Your task to perform on an android device: change text size in settings app Image 0: 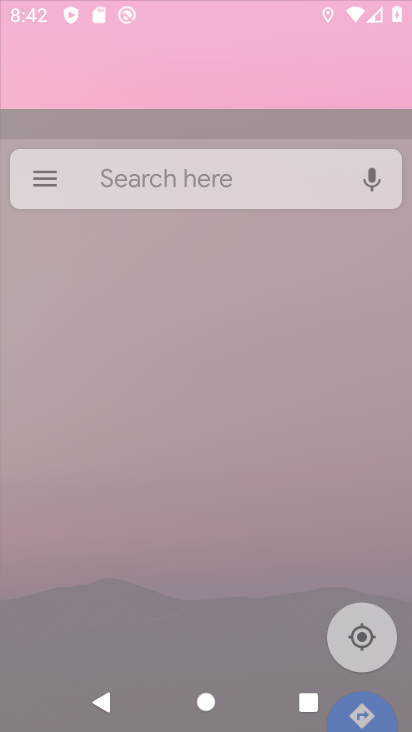
Step 0: click (256, 48)
Your task to perform on an android device: change text size in settings app Image 1: 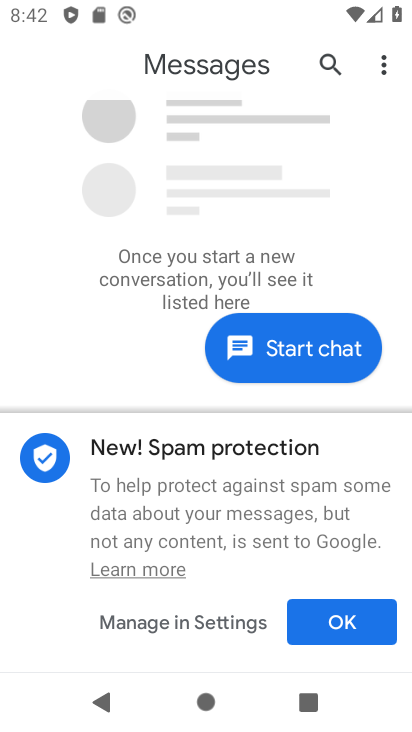
Step 1: press back button
Your task to perform on an android device: change text size in settings app Image 2: 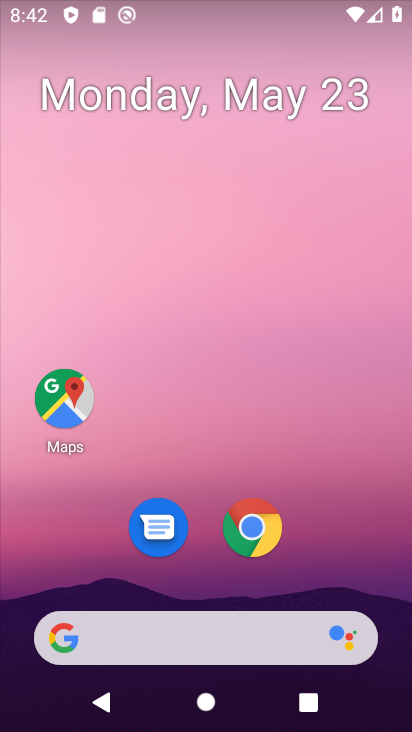
Step 2: drag from (378, 546) to (180, 13)
Your task to perform on an android device: change text size in settings app Image 3: 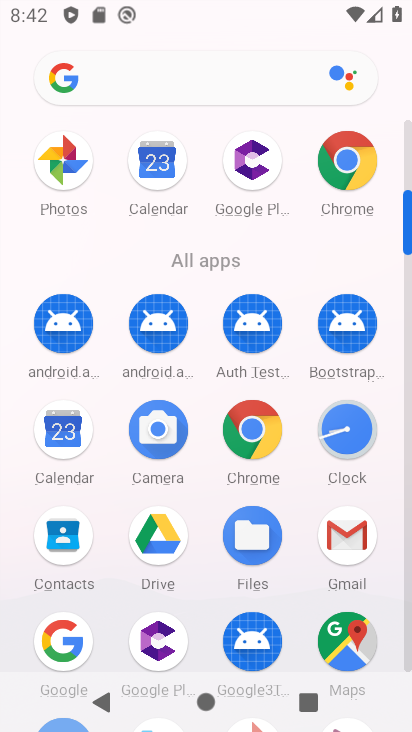
Step 3: drag from (15, 529) to (29, 252)
Your task to perform on an android device: change text size in settings app Image 4: 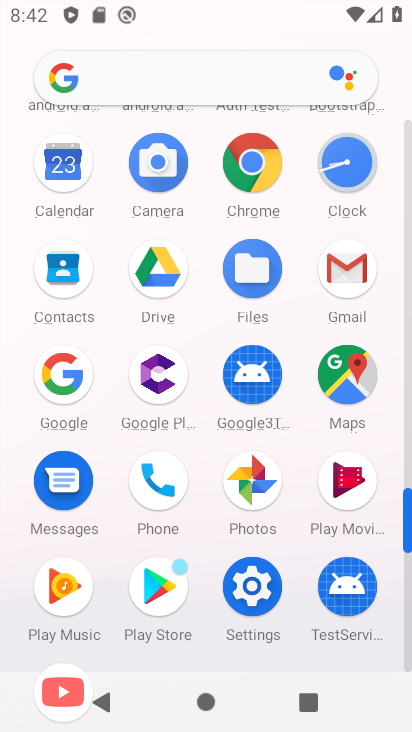
Step 4: click (248, 581)
Your task to perform on an android device: change text size in settings app Image 5: 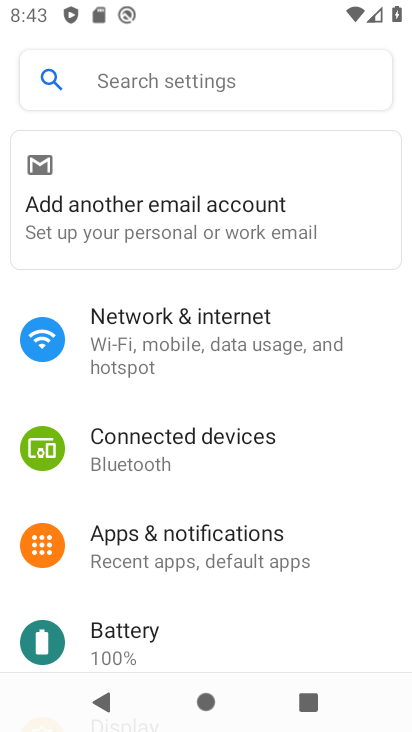
Step 5: drag from (237, 567) to (239, 186)
Your task to perform on an android device: change text size in settings app Image 6: 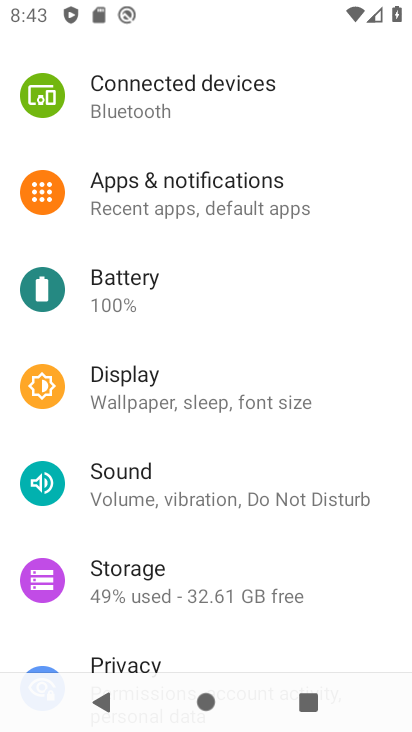
Step 6: drag from (287, 606) to (282, 160)
Your task to perform on an android device: change text size in settings app Image 7: 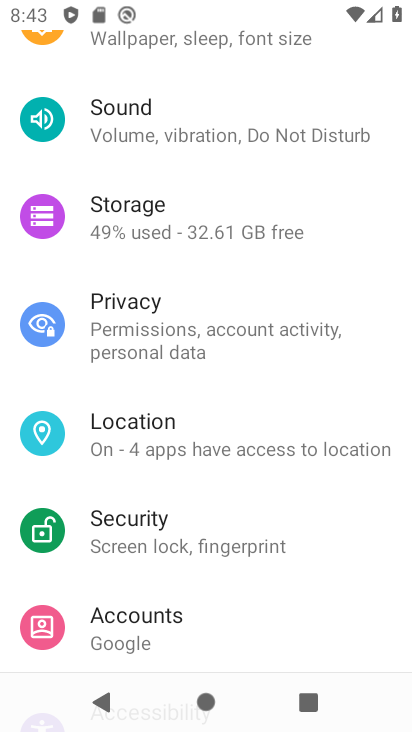
Step 7: drag from (277, 556) to (276, 121)
Your task to perform on an android device: change text size in settings app Image 8: 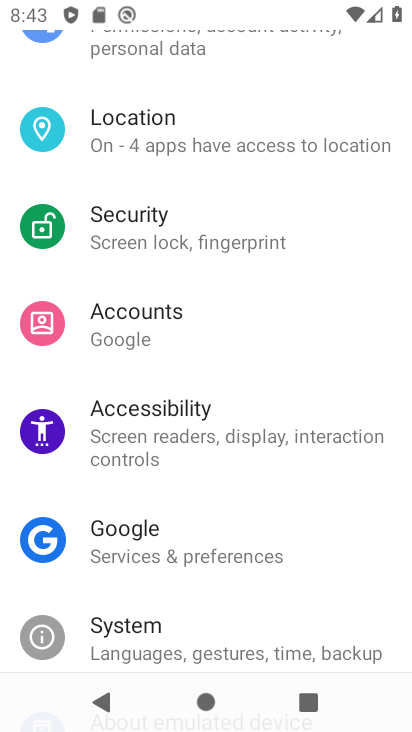
Step 8: drag from (253, 609) to (267, 158)
Your task to perform on an android device: change text size in settings app Image 9: 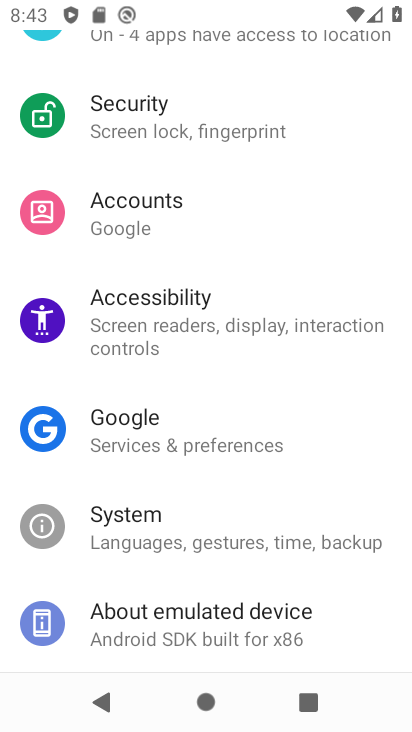
Step 9: drag from (269, 202) to (289, 564)
Your task to perform on an android device: change text size in settings app Image 10: 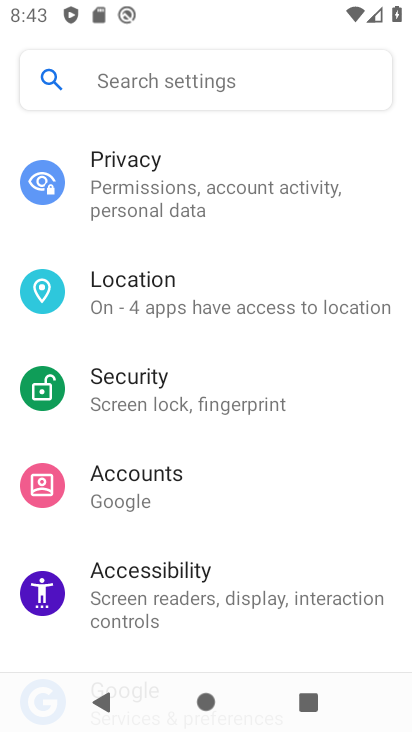
Step 10: drag from (243, 195) to (249, 553)
Your task to perform on an android device: change text size in settings app Image 11: 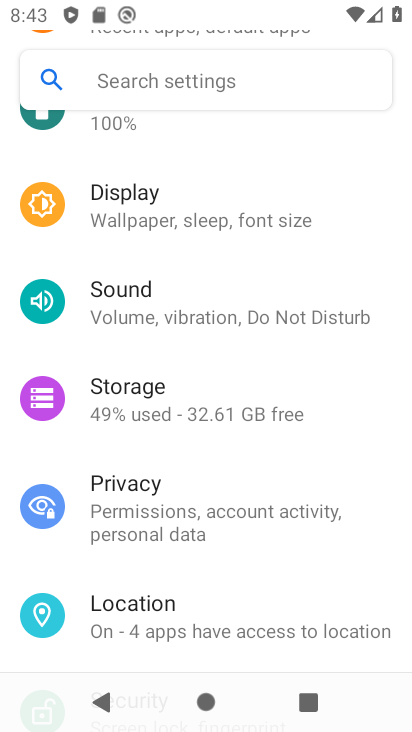
Step 11: click (216, 222)
Your task to perform on an android device: change text size in settings app Image 12: 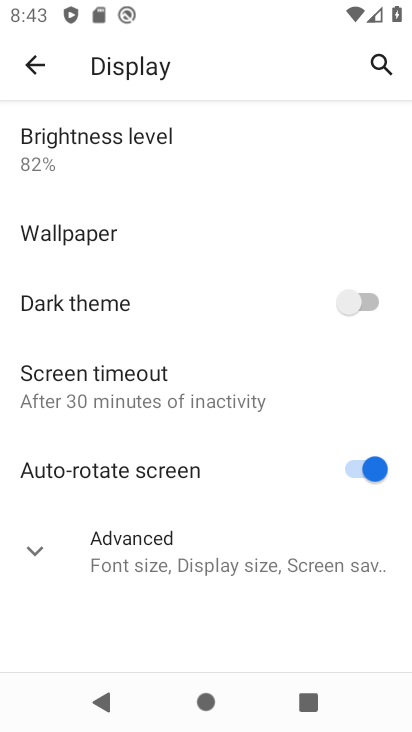
Step 12: click (101, 574)
Your task to perform on an android device: change text size in settings app Image 13: 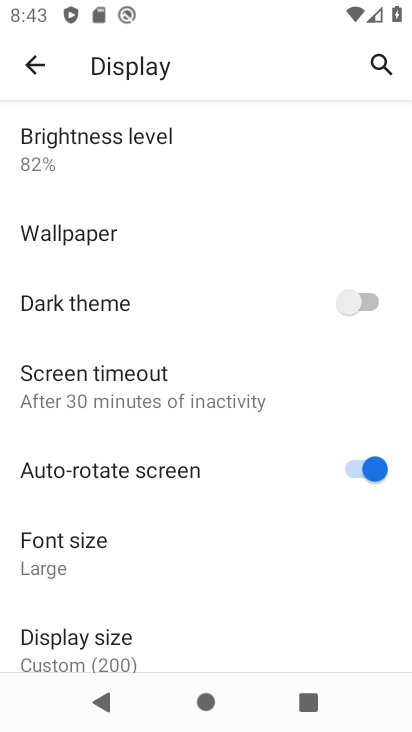
Step 13: drag from (177, 535) to (177, 132)
Your task to perform on an android device: change text size in settings app Image 14: 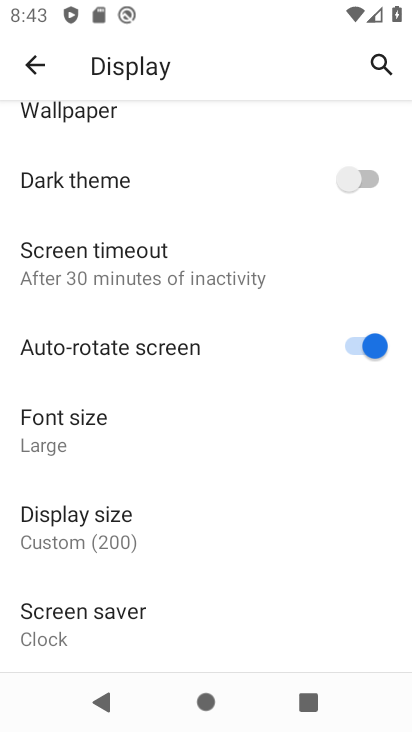
Step 14: click (120, 428)
Your task to perform on an android device: change text size in settings app Image 15: 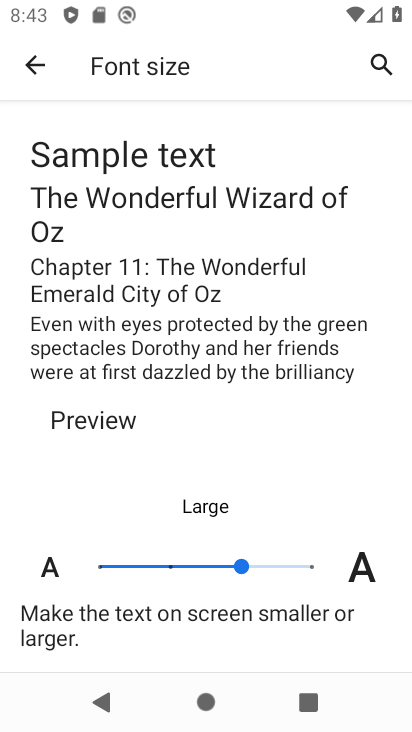
Step 15: drag from (206, 538) to (243, 243)
Your task to perform on an android device: change text size in settings app Image 16: 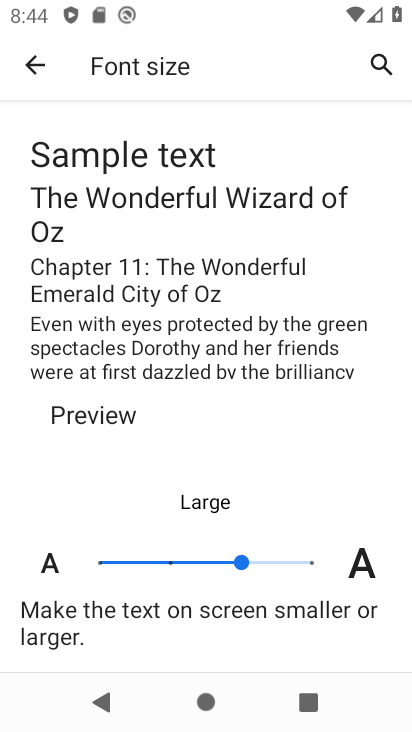
Step 16: click (293, 559)
Your task to perform on an android device: change text size in settings app Image 17: 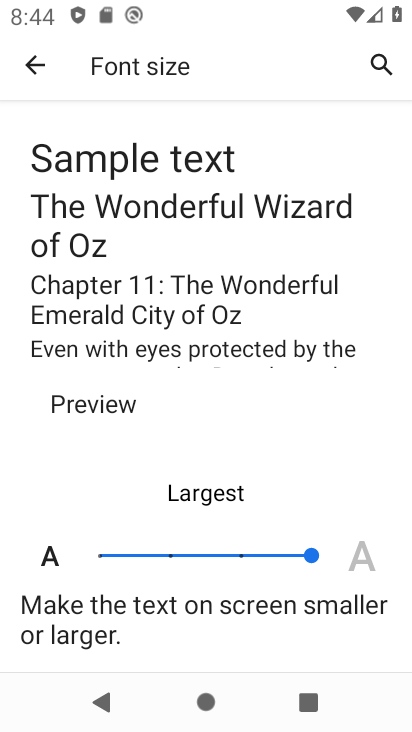
Step 17: task complete